Your task to perform on an android device: Add "macbook pro" to the cart on target, then select checkout. Image 0: 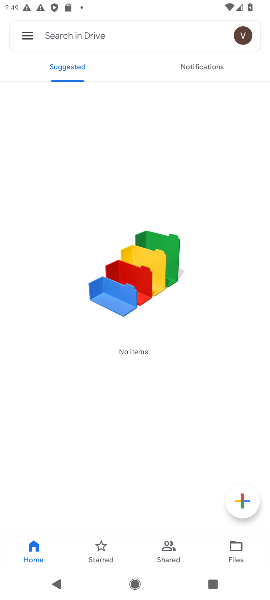
Step 0: press home button
Your task to perform on an android device: Add "macbook pro" to the cart on target, then select checkout. Image 1: 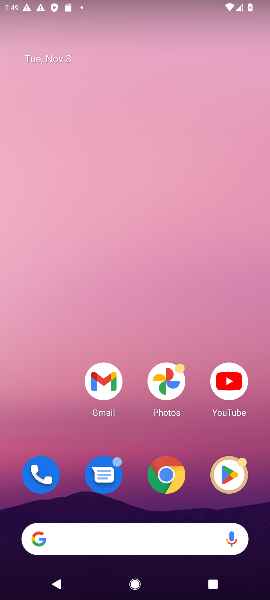
Step 1: drag from (122, 549) to (134, 99)
Your task to perform on an android device: Add "macbook pro" to the cart on target, then select checkout. Image 2: 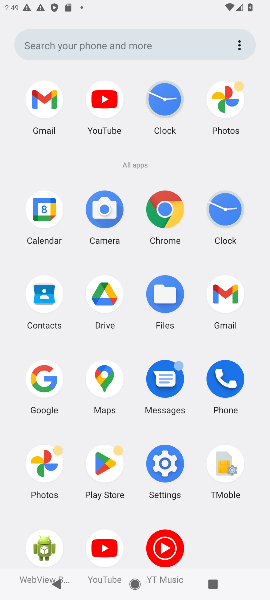
Step 2: click (40, 379)
Your task to perform on an android device: Add "macbook pro" to the cart on target, then select checkout. Image 3: 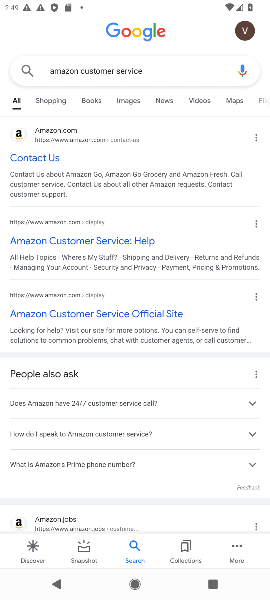
Step 3: click (126, 69)
Your task to perform on an android device: Add "macbook pro" to the cart on target, then select checkout. Image 4: 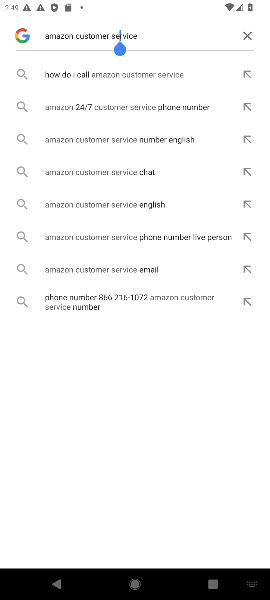
Step 4: click (254, 33)
Your task to perform on an android device: Add "macbook pro" to the cart on target, then select checkout. Image 5: 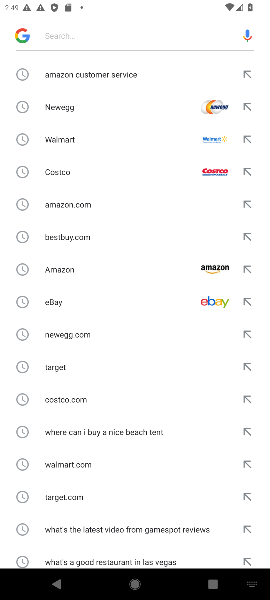
Step 5: click (80, 28)
Your task to perform on an android device: Add "macbook pro" to the cart on target, then select checkout. Image 6: 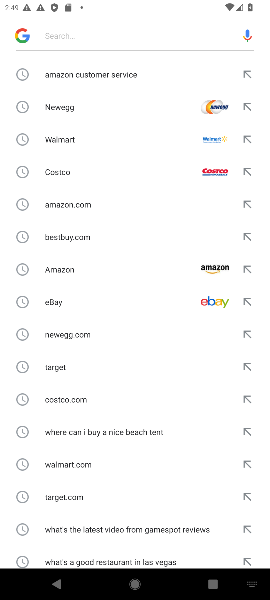
Step 6: type "target "
Your task to perform on an android device: Add "macbook pro" to the cart on target, then select checkout. Image 7: 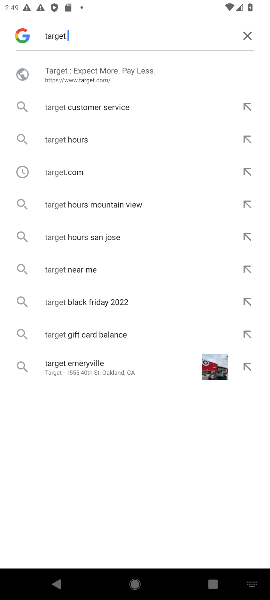
Step 7: click (105, 76)
Your task to perform on an android device: Add "macbook pro" to the cart on target, then select checkout. Image 8: 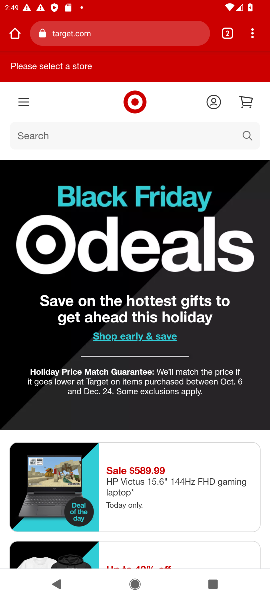
Step 8: click (105, 130)
Your task to perform on an android device: Add "macbook pro" to the cart on target, then select checkout. Image 9: 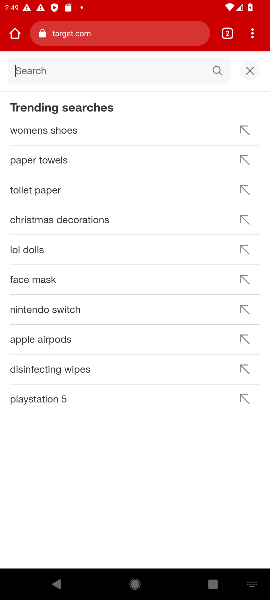
Step 9: type "macbook "
Your task to perform on an android device: Add "macbook pro" to the cart on target, then select checkout. Image 10: 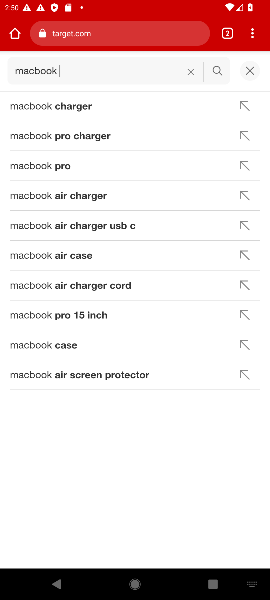
Step 10: click (61, 167)
Your task to perform on an android device: Add "macbook pro" to the cart on target, then select checkout. Image 11: 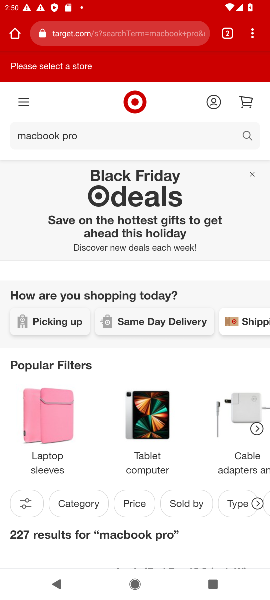
Step 11: click (250, 131)
Your task to perform on an android device: Add "macbook pro" to the cart on target, then select checkout. Image 12: 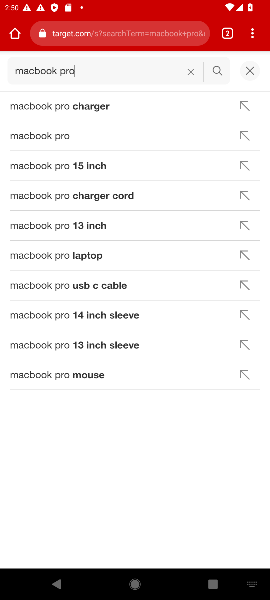
Step 12: click (60, 135)
Your task to perform on an android device: Add "macbook pro" to the cart on target, then select checkout. Image 13: 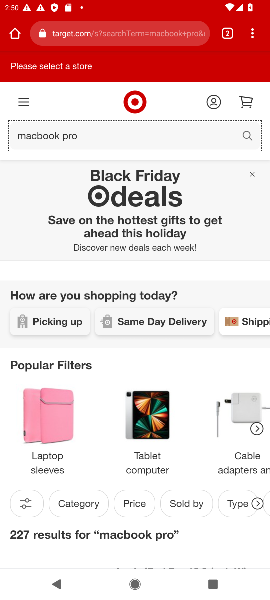
Step 13: drag from (144, 464) to (171, 100)
Your task to perform on an android device: Add "macbook pro" to the cart on target, then select checkout. Image 14: 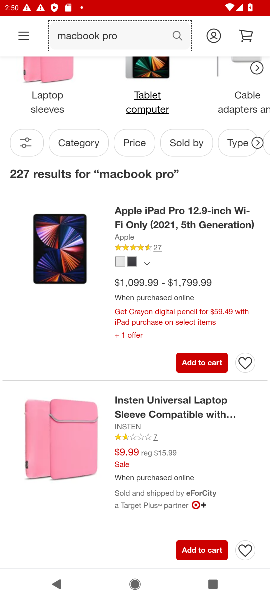
Step 14: click (201, 365)
Your task to perform on an android device: Add "macbook pro" to the cart on target, then select checkout. Image 15: 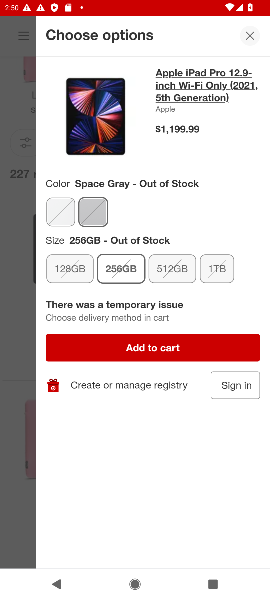
Step 15: click (180, 338)
Your task to perform on an android device: Add "macbook pro" to the cart on target, then select checkout. Image 16: 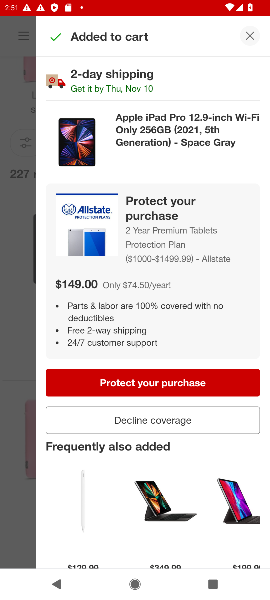
Step 16: task complete